Your task to perform on an android device: Search for "bose quietcomfort 35" on ebay, select the first entry, add it to the cart, then select checkout. Image 0: 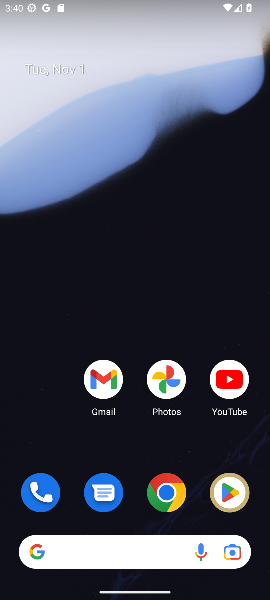
Step 0: click (161, 497)
Your task to perform on an android device: Search for "bose quietcomfort 35" on ebay, select the first entry, add it to the cart, then select checkout. Image 1: 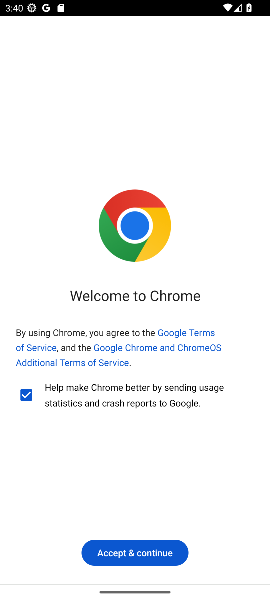
Step 1: click (140, 548)
Your task to perform on an android device: Search for "bose quietcomfort 35" on ebay, select the first entry, add it to the cart, then select checkout. Image 2: 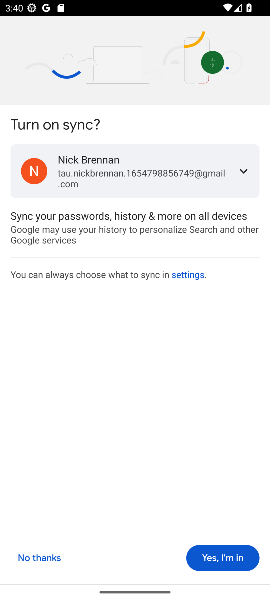
Step 2: click (218, 564)
Your task to perform on an android device: Search for "bose quietcomfort 35" on ebay, select the first entry, add it to the cart, then select checkout. Image 3: 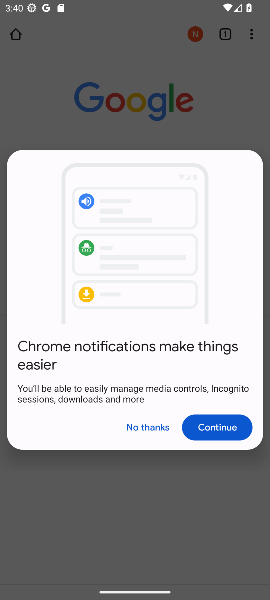
Step 3: click (154, 425)
Your task to perform on an android device: Search for "bose quietcomfort 35" on ebay, select the first entry, add it to the cart, then select checkout. Image 4: 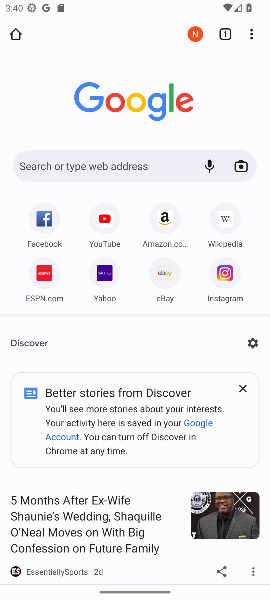
Step 4: click (98, 165)
Your task to perform on an android device: Search for "bose quietcomfort 35" on ebay, select the first entry, add it to the cart, then select checkout. Image 5: 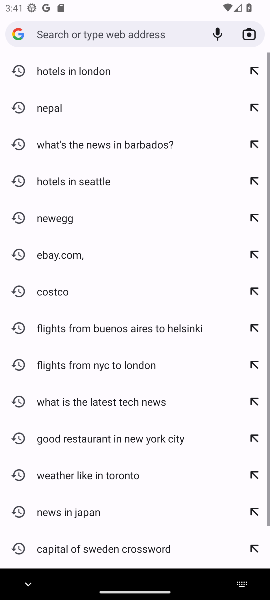
Step 5: type "ebay"
Your task to perform on an android device: Search for "bose quietcomfort 35" on ebay, select the first entry, add it to the cart, then select checkout. Image 6: 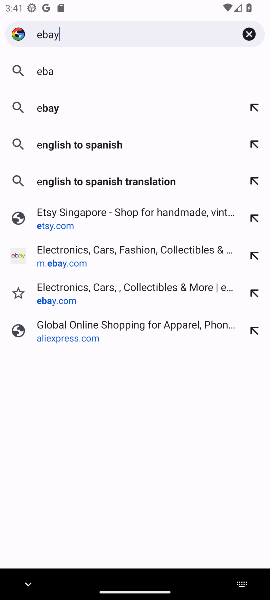
Step 6: type ""
Your task to perform on an android device: Search for "bose quietcomfort 35" on ebay, select the first entry, add it to the cart, then select checkout. Image 7: 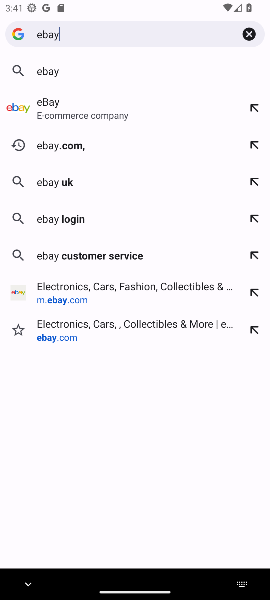
Step 7: click (76, 100)
Your task to perform on an android device: Search for "bose quietcomfort 35" on ebay, select the first entry, add it to the cart, then select checkout. Image 8: 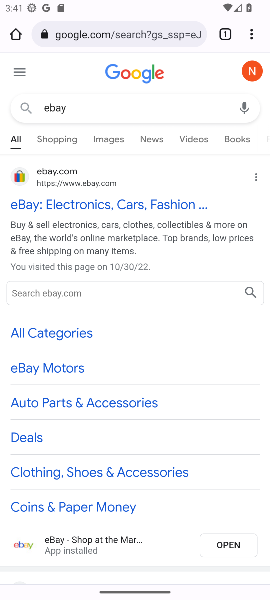
Step 8: click (53, 205)
Your task to perform on an android device: Search for "bose quietcomfort 35" on ebay, select the first entry, add it to the cart, then select checkout. Image 9: 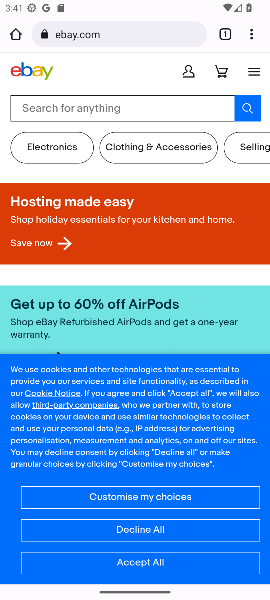
Step 9: click (162, 560)
Your task to perform on an android device: Search for "bose quietcomfort 35" on ebay, select the first entry, add it to the cart, then select checkout. Image 10: 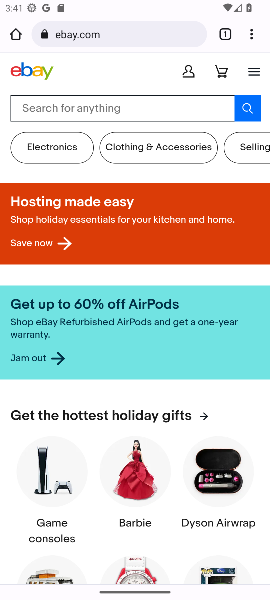
Step 10: click (74, 110)
Your task to perform on an android device: Search for "bose quietcomfort 35" on ebay, select the first entry, add it to the cart, then select checkout. Image 11: 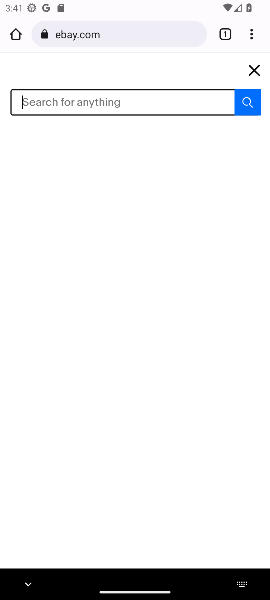
Step 11: type "bose quietcomfort 35"
Your task to perform on an android device: Search for "bose quietcomfort 35" on ebay, select the first entry, add it to the cart, then select checkout. Image 12: 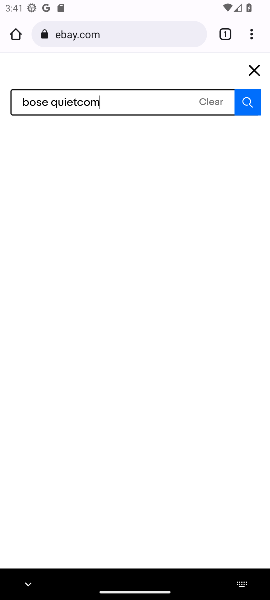
Step 12: type ""
Your task to perform on an android device: Search for "bose quietcomfort 35" on ebay, select the first entry, add it to the cart, then select checkout. Image 13: 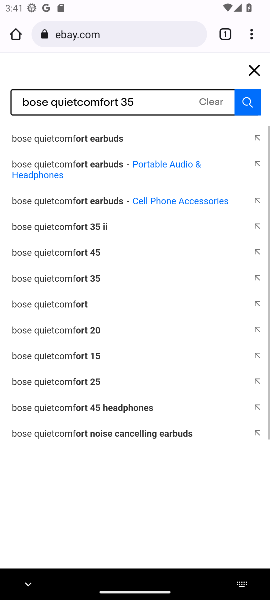
Step 13: press enter
Your task to perform on an android device: Search for "bose quietcomfort 35" on ebay, select the first entry, add it to the cart, then select checkout. Image 14: 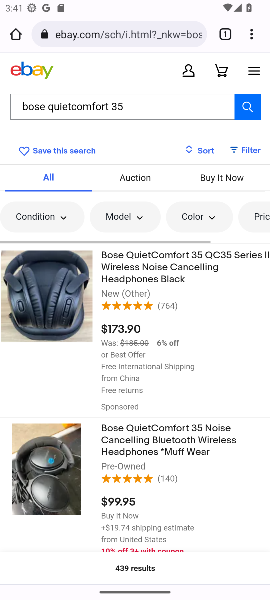
Step 14: click (181, 262)
Your task to perform on an android device: Search for "bose quietcomfort 35" on ebay, select the first entry, add it to the cart, then select checkout. Image 15: 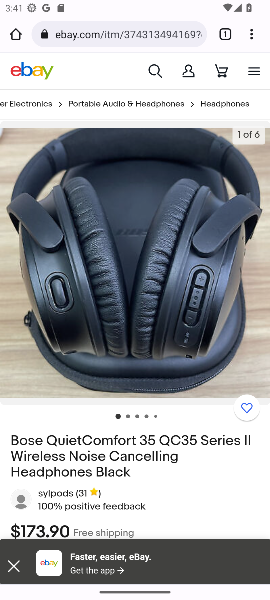
Step 15: drag from (196, 525) to (256, 146)
Your task to perform on an android device: Search for "bose quietcomfort 35" on ebay, select the first entry, add it to the cart, then select checkout. Image 16: 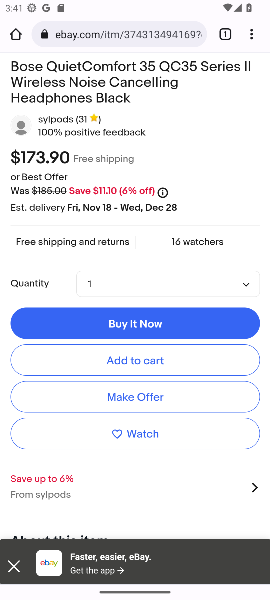
Step 16: click (136, 364)
Your task to perform on an android device: Search for "bose quietcomfort 35" on ebay, select the first entry, add it to the cart, then select checkout. Image 17: 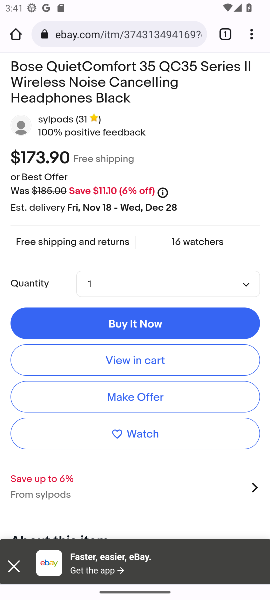
Step 17: click (136, 364)
Your task to perform on an android device: Search for "bose quietcomfort 35" on ebay, select the first entry, add it to the cart, then select checkout. Image 18: 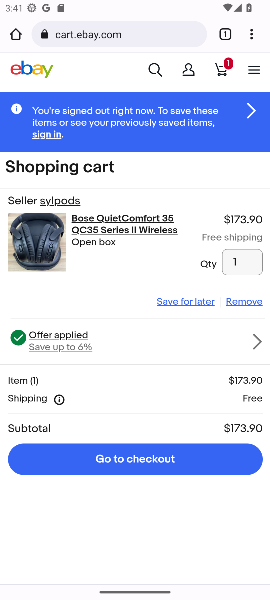
Step 18: click (92, 465)
Your task to perform on an android device: Search for "bose quietcomfort 35" on ebay, select the first entry, add it to the cart, then select checkout. Image 19: 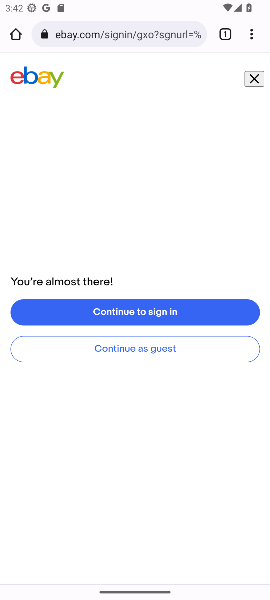
Step 19: click (166, 350)
Your task to perform on an android device: Search for "bose quietcomfort 35" on ebay, select the first entry, add it to the cart, then select checkout. Image 20: 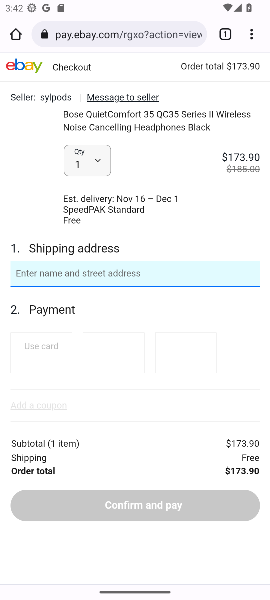
Step 20: drag from (167, 437) to (156, 125)
Your task to perform on an android device: Search for "bose quietcomfort 35" on ebay, select the first entry, add it to the cart, then select checkout. Image 21: 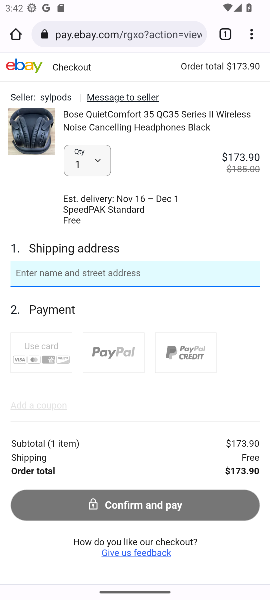
Step 21: click (155, 119)
Your task to perform on an android device: Search for "bose quietcomfort 35" on ebay, select the first entry, add it to the cart, then select checkout. Image 22: 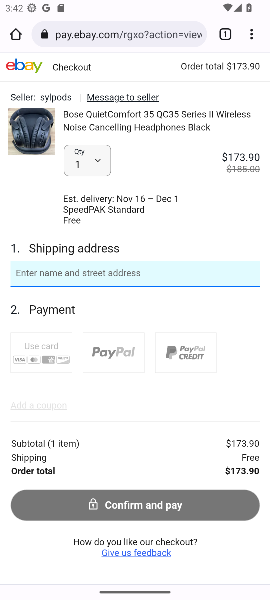
Step 22: click (47, 133)
Your task to perform on an android device: Search for "bose quietcomfort 35" on ebay, select the first entry, add it to the cart, then select checkout. Image 23: 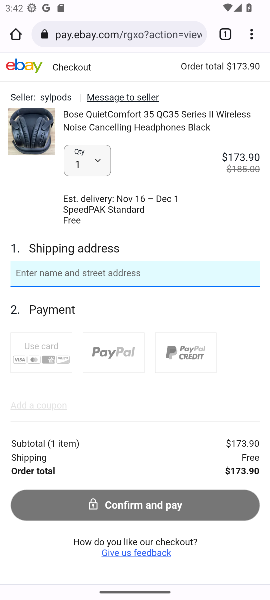
Step 23: click (77, 117)
Your task to perform on an android device: Search for "bose quietcomfort 35" on ebay, select the first entry, add it to the cart, then select checkout. Image 24: 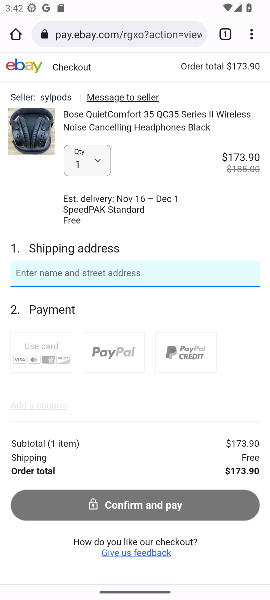
Step 24: click (76, 129)
Your task to perform on an android device: Search for "bose quietcomfort 35" on ebay, select the first entry, add it to the cart, then select checkout. Image 25: 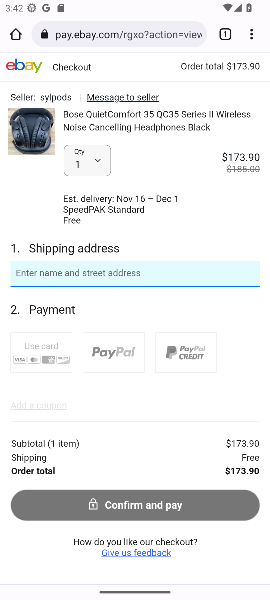
Step 25: click (93, 244)
Your task to perform on an android device: Search for "bose quietcomfort 35" on ebay, select the first entry, add it to the cart, then select checkout. Image 26: 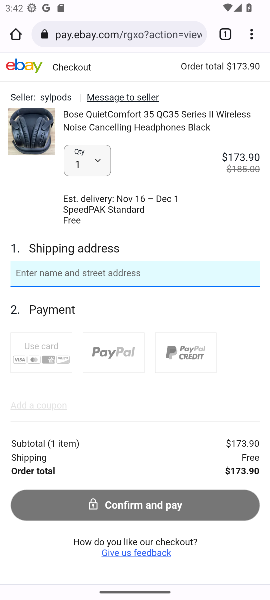
Step 26: click (155, 510)
Your task to perform on an android device: Search for "bose quietcomfort 35" on ebay, select the first entry, add it to the cart, then select checkout. Image 27: 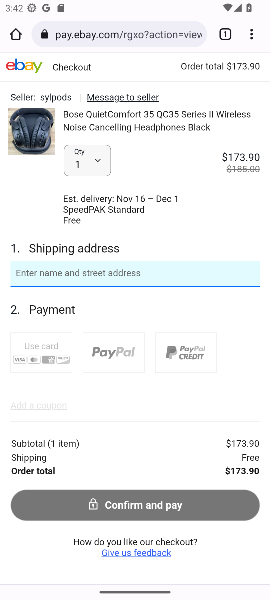
Step 27: drag from (111, 276) to (158, 151)
Your task to perform on an android device: Search for "bose quietcomfort 35" on ebay, select the first entry, add it to the cart, then select checkout. Image 28: 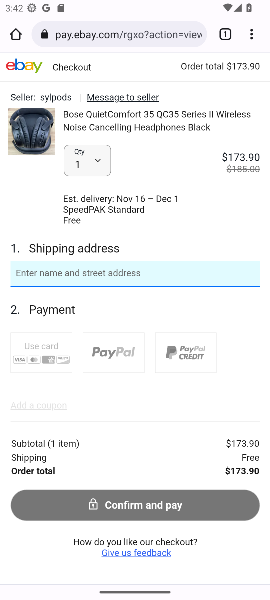
Step 28: drag from (148, 303) to (176, 134)
Your task to perform on an android device: Search for "bose quietcomfort 35" on ebay, select the first entry, add it to the cart, then select checkout. Image 29: 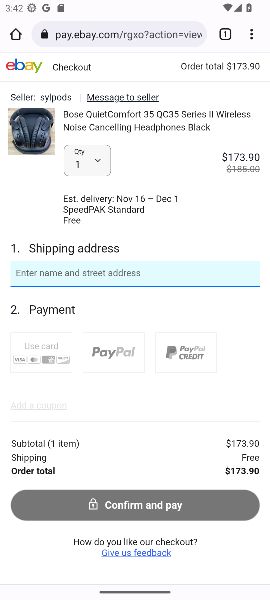
Step 29: drag from (160, 263) to (175, 184)
Your task to perform on an android device: Search for "bose quietcomfort 35" on ebay, select the first entry, add it to the cart, then select checkout. Image 30: 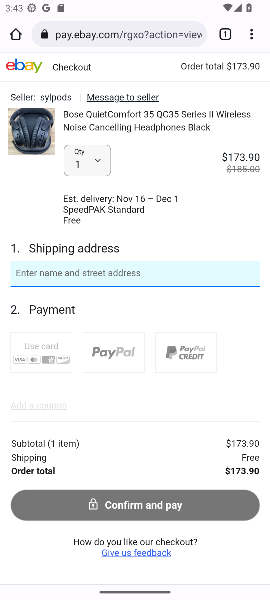
Step 30: drag from (74, 322) to (107, 122)
Your task to perform on an android device: Search for "bose quietcomfort 35" on ebay, select the first entry, add it to the cart, then select checkout. Image 31: 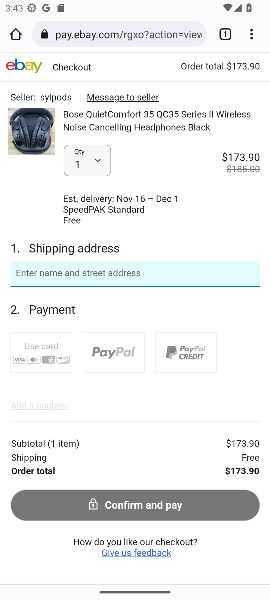
Step 31: drag from (126, 255) to (137, 122)
Your task to perform on an android device: Search for "bose quietcomfort 35" on ebay, select the first entry, add it to the cart, then select checkout. Image 32: 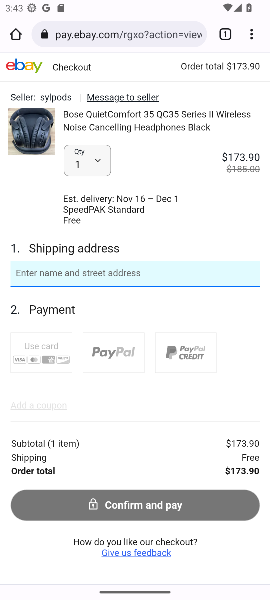
Step 32: drag from (137, 234) to (154, 109)
Your task to perform on an android device: Search for "bose quietcomfort 35" on ebay, select the first entry, add it to the cart, then select checkout. Image 33: 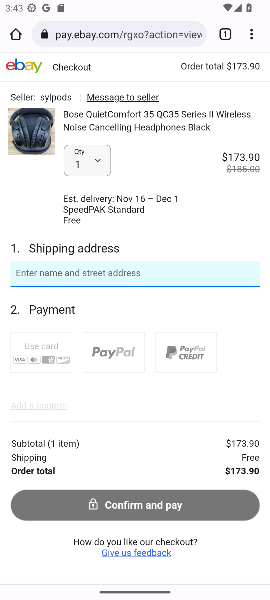
Step 33: drag from (133, 222) to (158, 100)
Your task to perform on an android device: Search for "bose quietcomfort 35" on ebay, select the first entry, add it to the cart, then select checkout. Image 34: 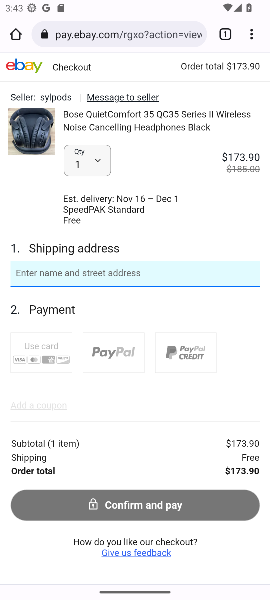
Step 34: drag from (151, 258) to (154, 138)
Your task to perform on an android device: Search for "bose quietcomfort 35" on ebay, select the first entry, add it to the cart, then select checkout. Image 35: 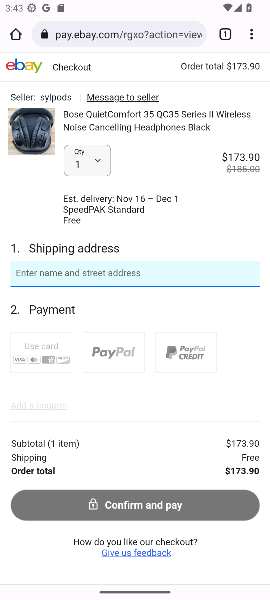
Step 35: drag from (123, 252) to (131, 117)
Your task to perform on an android device: Search for "bose quietcomfort 35" on ebay, select the first entry, add it to the cart, then select checkout. Image 36: 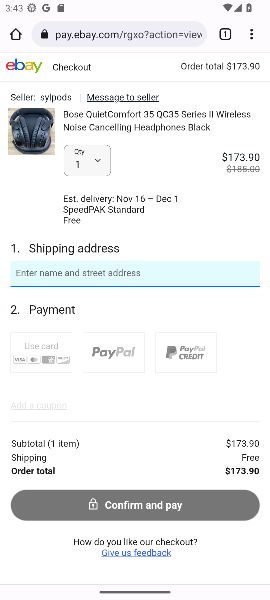
Step 36: press back button
Your task to perform on an android device: Search for "bose quietcomfort 35" on ebay, select the first entry, add it to the cart, then select checkout. Image 37: 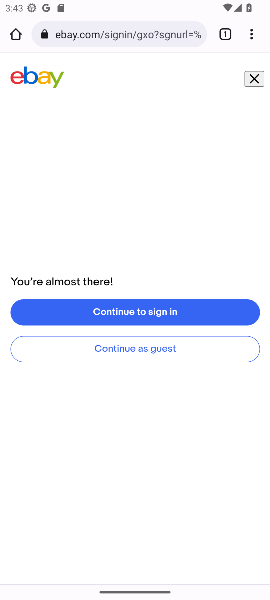
Step 37: click (248, 79)
Your task to perform on an android device: Search for "bose quietcomfort 35" on ebay, select the first entry, add it to the cart, then select checkout. Image 38: 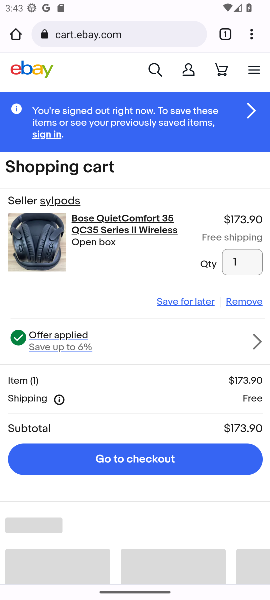
Step 38: drag from (191, 332) to (214, 176)
Your task to perform on an android device: Search for "bose quietcomfort 35" on ebay, select the first entry, add it to the cart, then select checkout. Image 39: 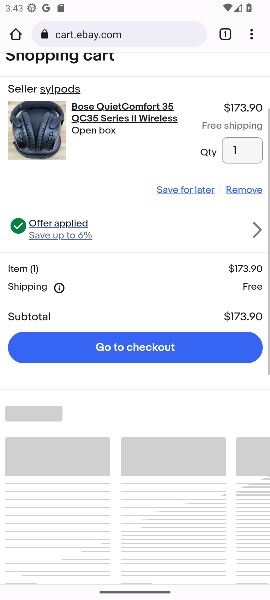
Step 39: click (184, 172)
Your task to perform on an android device: Search for "bose quietcomfort 35" on ebay, select the first entry, add it to the cart, then select checkout. Image 40: 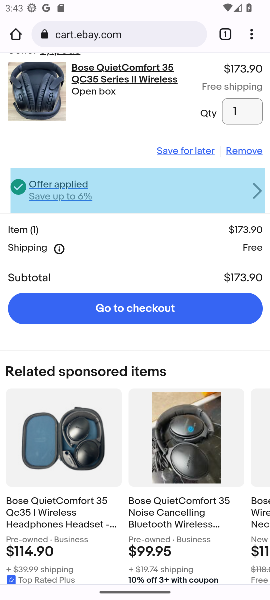
Step 40: task complete